Your task to perform on an android device: Open the Play Movies app and select the watchlist tab. Image 0: 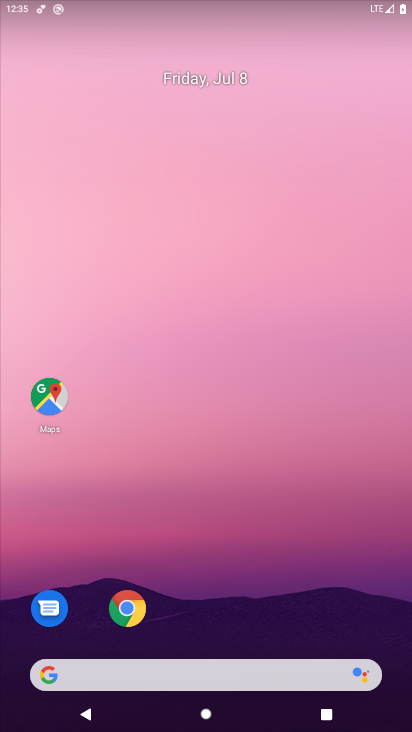
Step 0: press home button
Your task to perform on an android device: Open the Play Movies app and select the watchlist tab. Image 1: 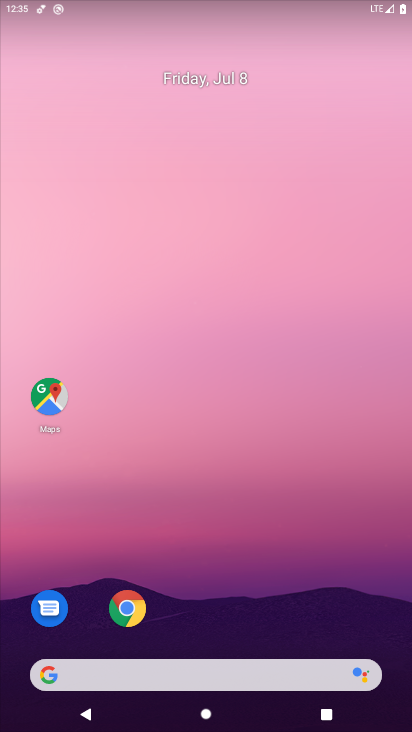
Step 1: drag from (257, 652) to (258, 536)
Your task to perform on an android device: Open the Play Movies app and select the watchlist tab. Image 2: 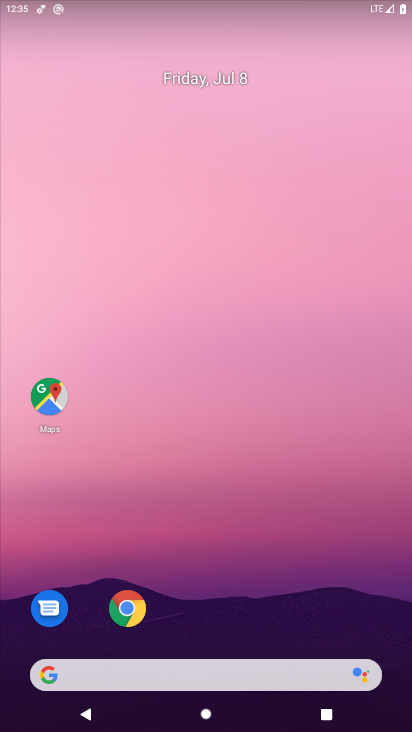
Step 2: drag from (277, 536) to (149, 12)
Your task to perform on an android device: Open the Play Movies app and select the watchlist tab. Image 3: 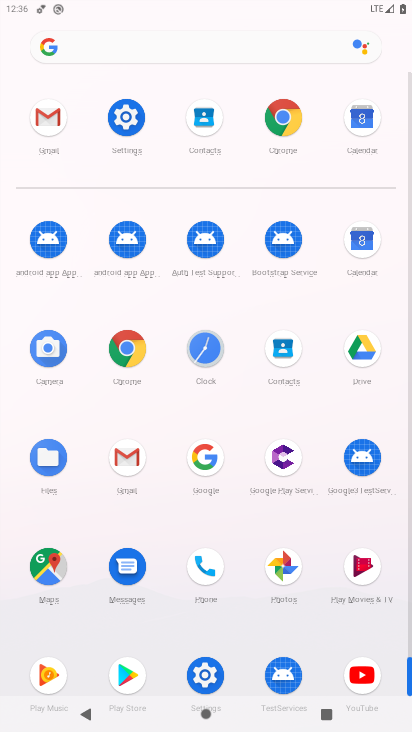
Step 3: click (360, 576)
Your task to perform on an android device: Open the Play Movies app and select the watchlist tab. Image 4: 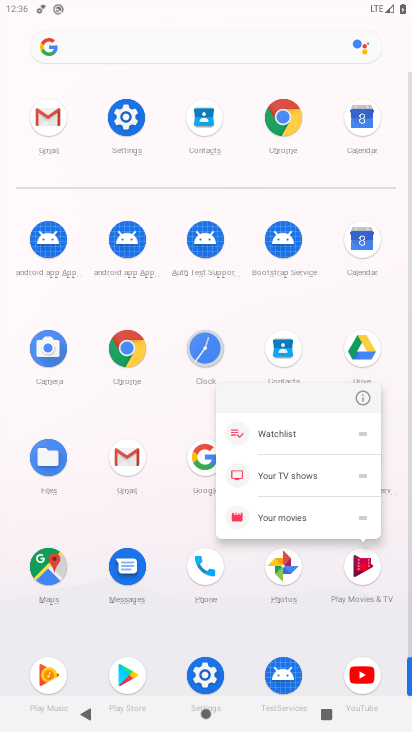
Step 4: click (357, 587)
Your task to perform on an android device: Open the Play Movies app and select the watchlist tab. Image 5: 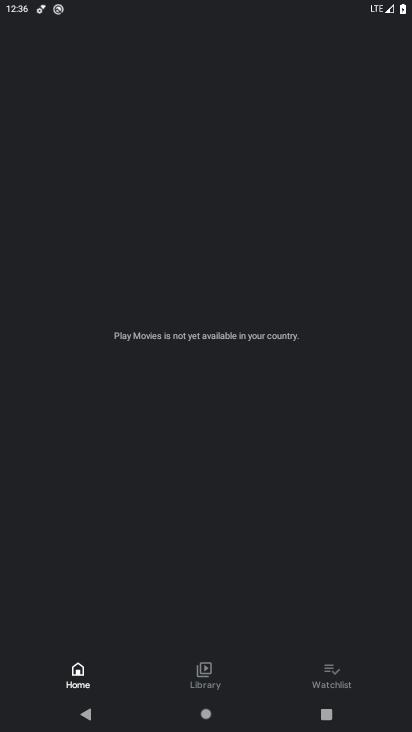
Step 5: click (337, 680)
Your task to perform on an android device: Open the Play Movies app and select the watchlist tab. Image 6: 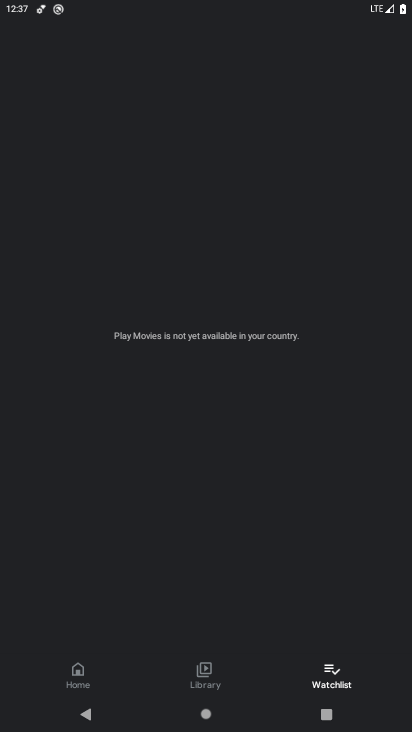
Step 6: task complete